Your task to perform on an android device: turn on priority inbox in the gmail app Image 0: 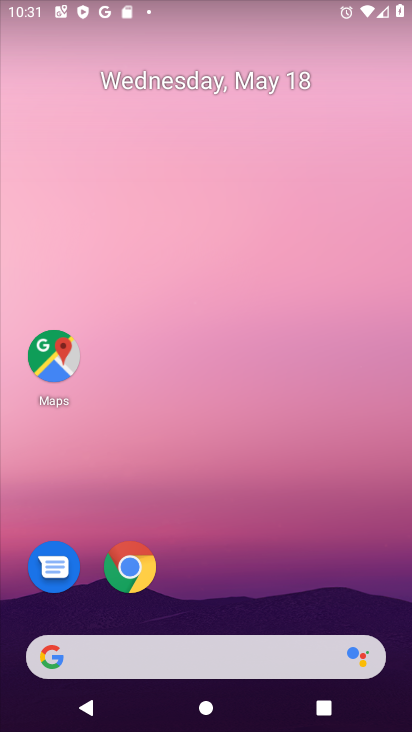
Step 0: drag from (224, 649) to (233, 15)
Your task to perform on an android device: turn on priority inbox in the gmail app Image 1: 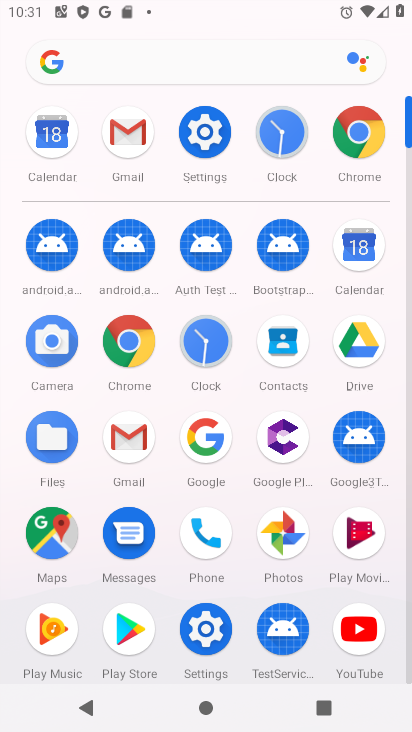
Step 1: click (122, 129)
Your task to perform on an android device: turn on priority inbox in the gmail app Image 2: 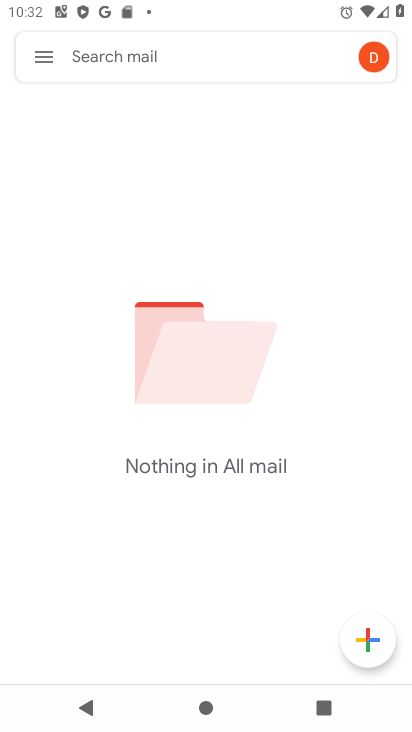
Step 2: click (41, 61)
Your task to perform on an android device: turn on priority inbox in the gmail app Image 3: 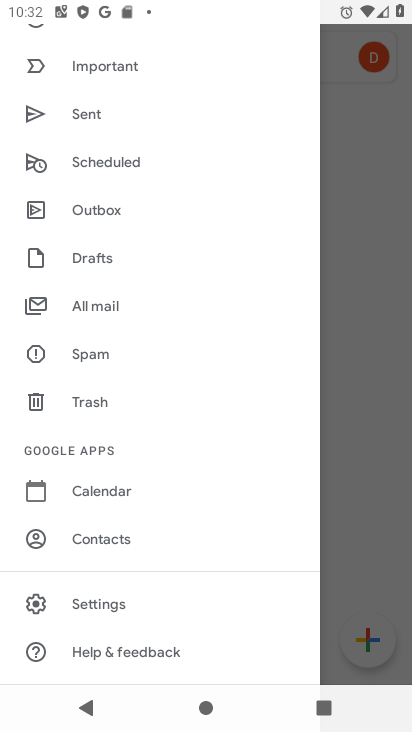
Step 3: click (89, 606)
Your task to perform on an android device: turn on priority inbox in the gmail app Image 4: 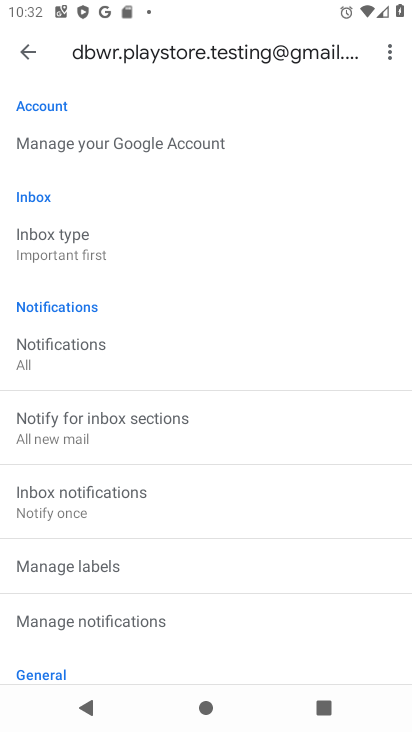
Step 4: click (83, 260)
Your task to perform on an android device: turn on priority inbox in the gmail app Image 5: 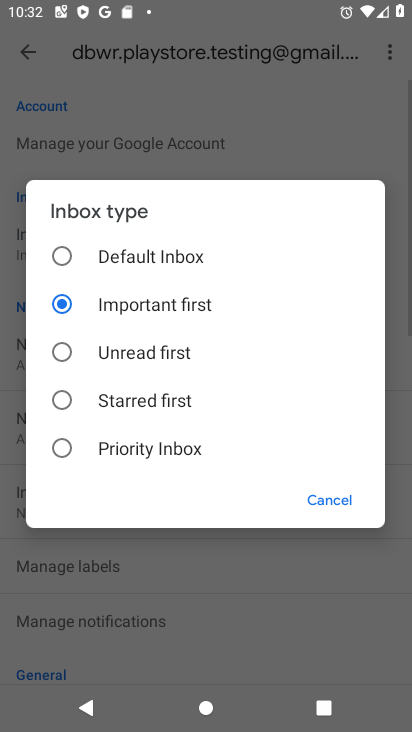
Step 5: click (130, 451)
Your task to perform on an android device: turn on priority inbox in the gmail app Image 6: 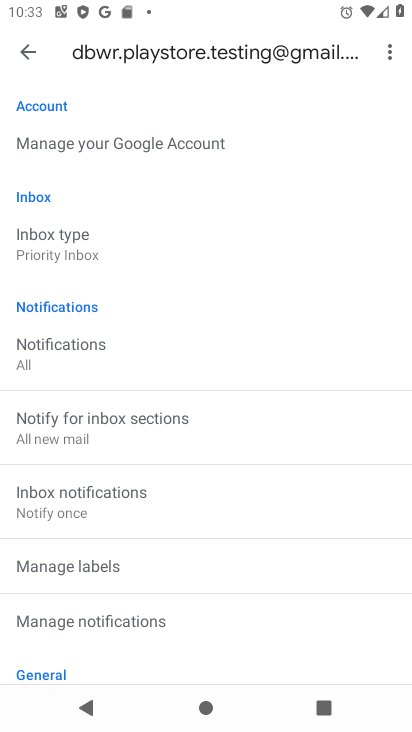
Step 6: task complete